Your task to perform on an android device: Search for "logitech g pro" on target.com, select the first entry, add it to the cart, then select checkout. Image 0: 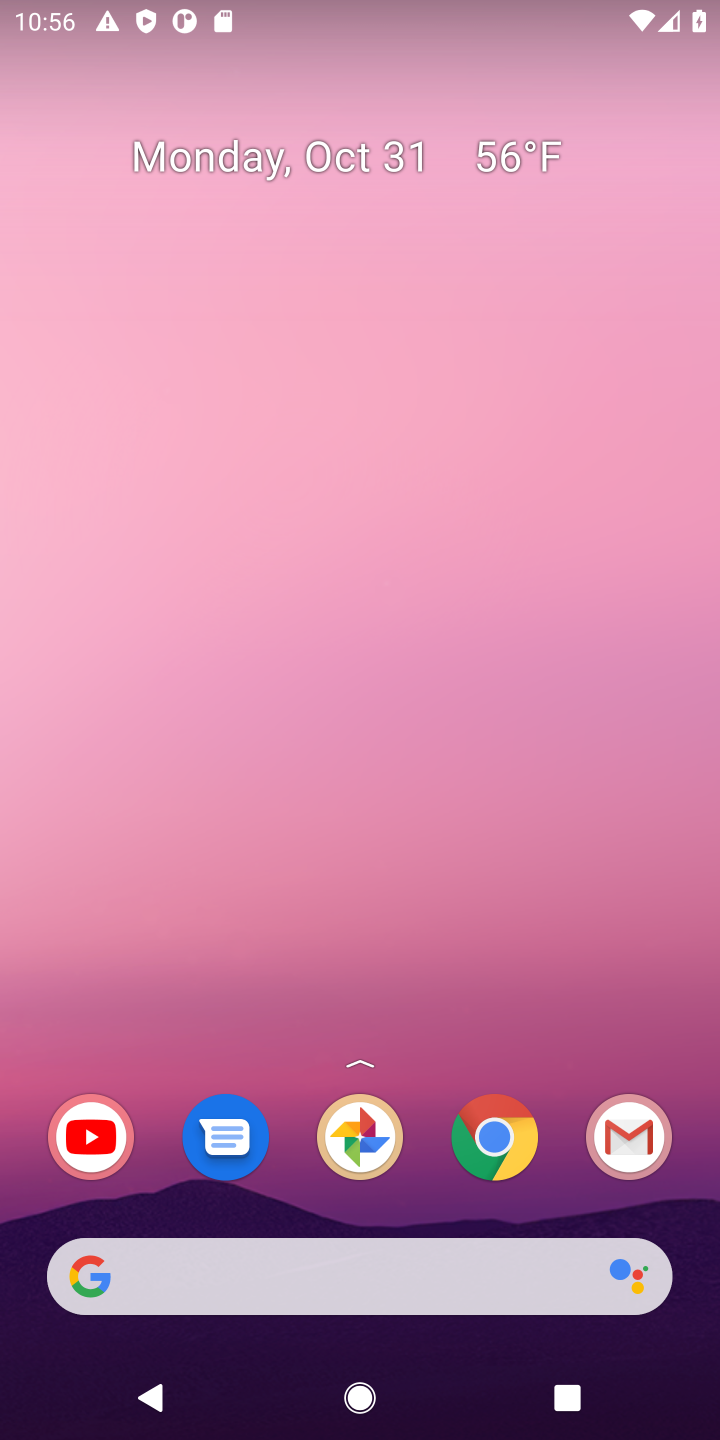
Step 0: click (489, 1136)
Your task to perform on an android device: Search for "logitech g pro" on target.com, select the first entry, add it to the cart, then select checkout. Image 1: 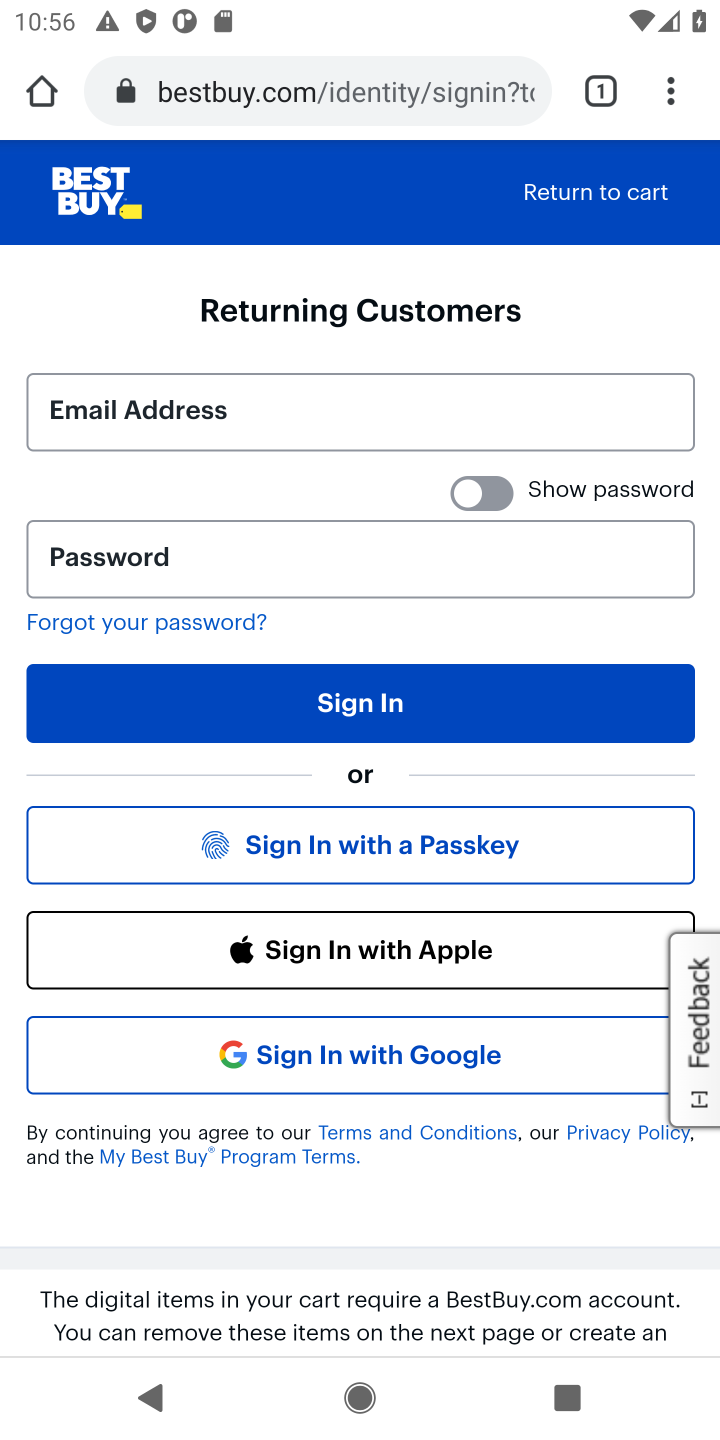
Step 1: click (339, 90)
Your task to perform on an android device: Search for "logitech g pro" on target.com, select the first entry, add it to the cart, then select checkout. Image 2: 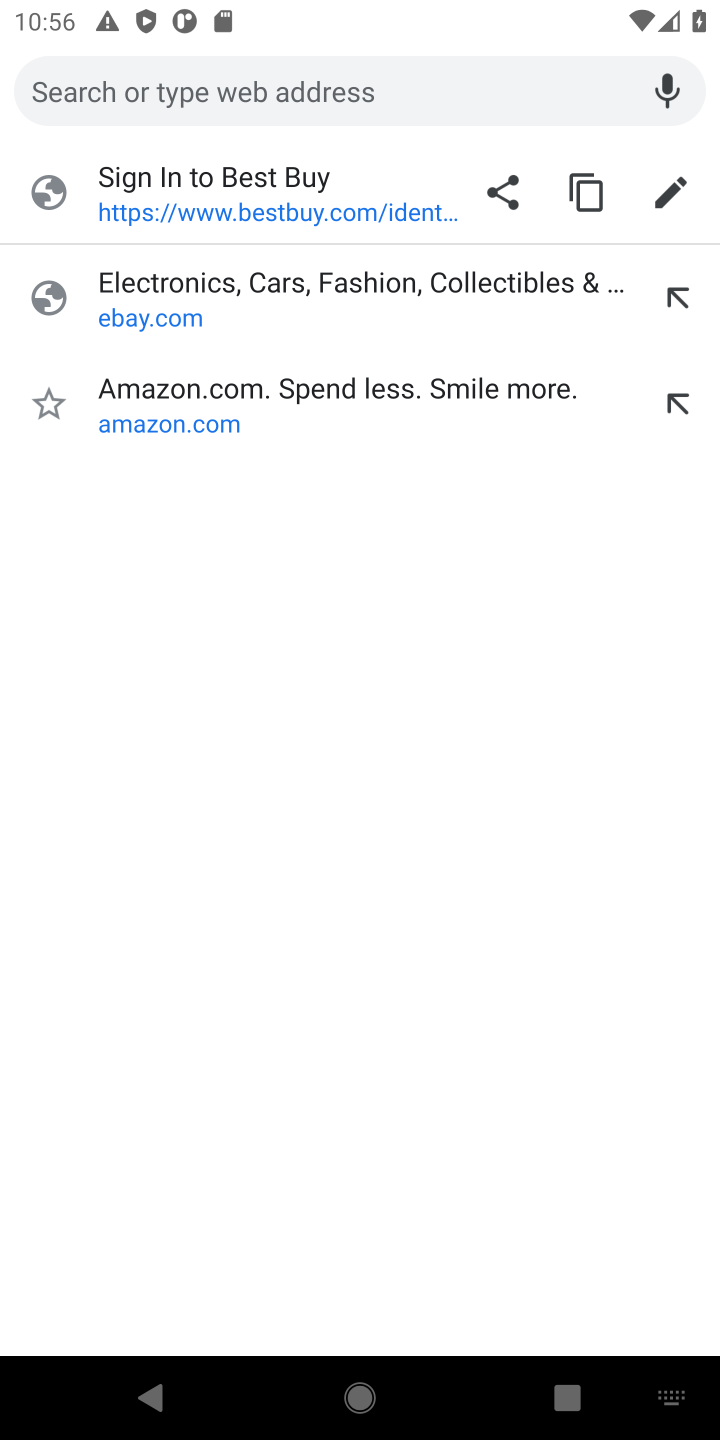
Step 2: type "target.com"
Your task to perform on an android device: Search for "logitech g pro" on target.com, select the first entry, add it to the cart, then select checkout. Image 3: 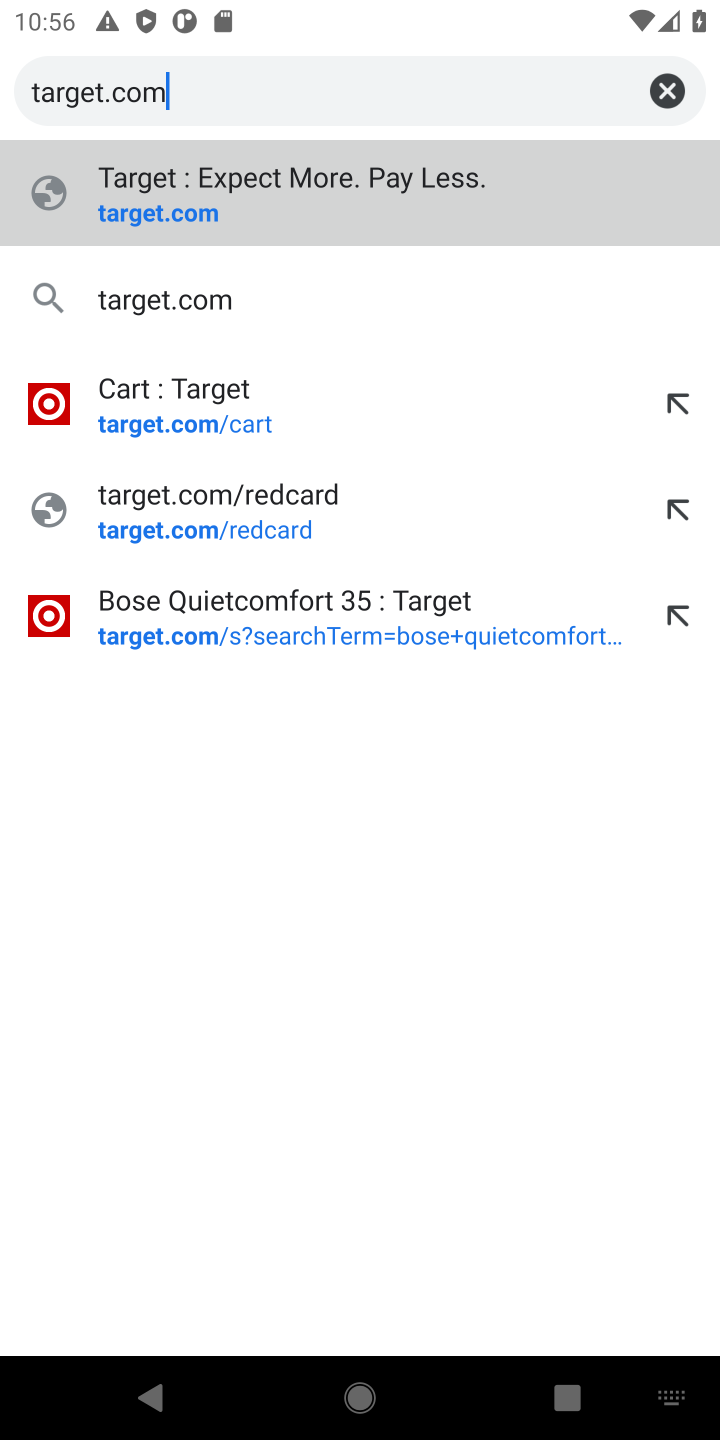
Step 3: click (187, 297)
Your task to perform on an android device: Search for "logitech g pro" on target.com, select the first entry, add it to the cart, then select checkout. Image 4: 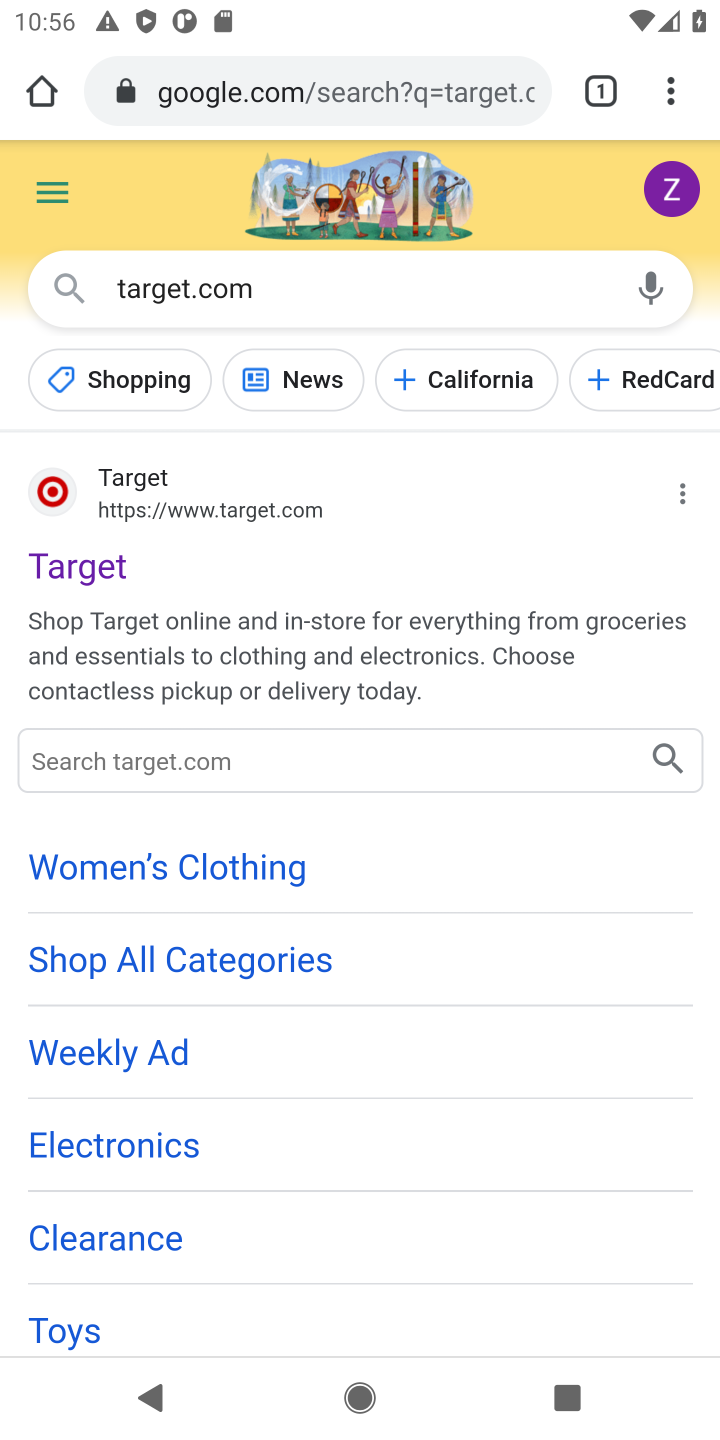
Step 4: click (162, 510)
Your task to perform on an android device: Search for "logitech g pro" on target.com, select the first entry, add it to the cart, then select checkout. Image 5: 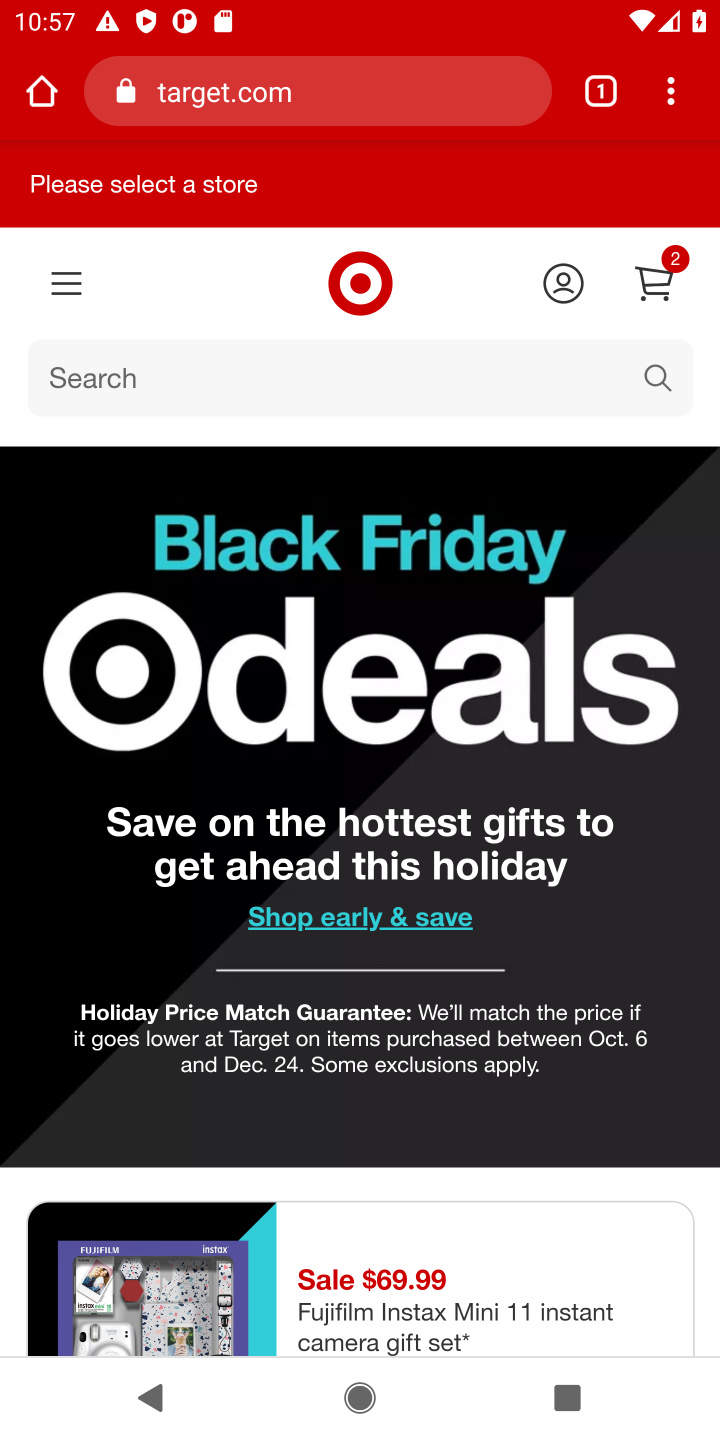
Step 5: click (571, 389)
Your task to perform on an android device: Search for "logitech g pro" on target.com, select the first entry, add it to the cart, then select checkout. Image 6: 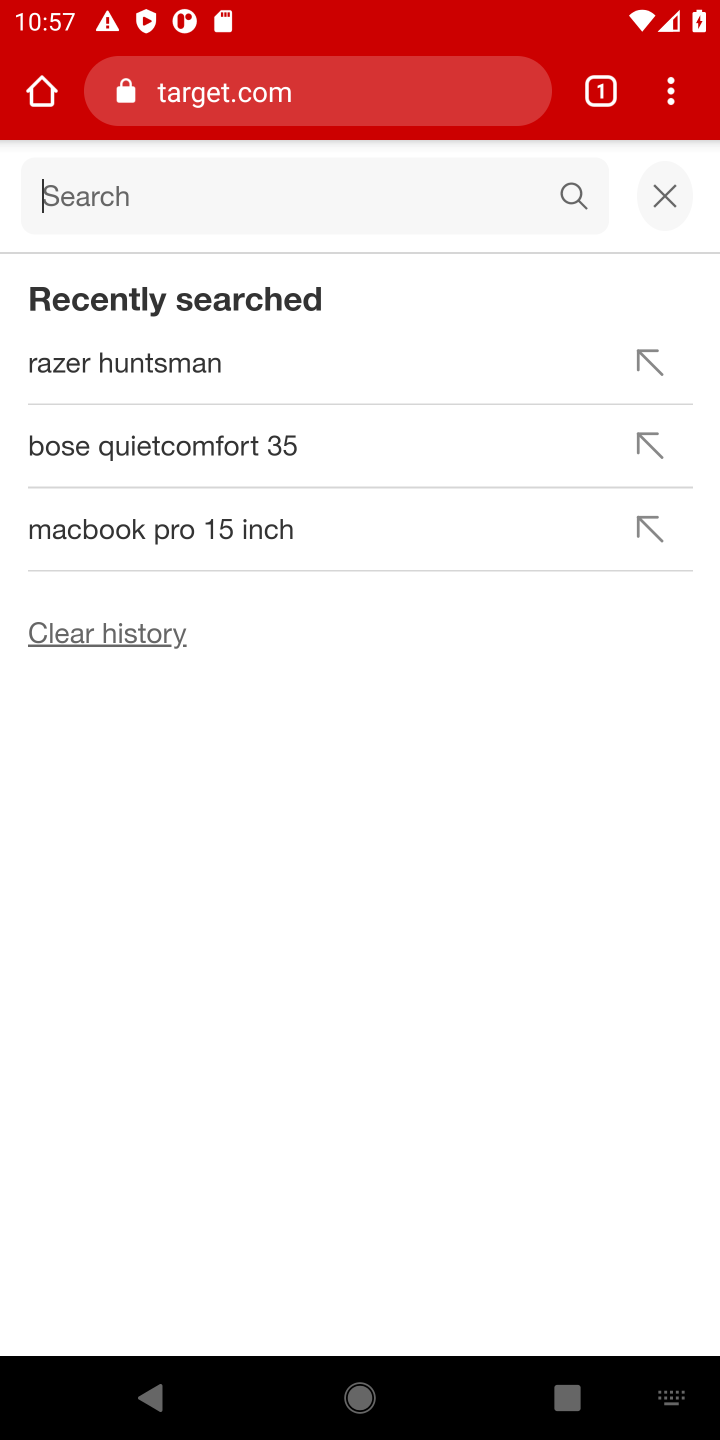
Step 6: type "logitech g pro"
Your task to perform on an android device: Search for "logitech g pro" on target.com, select the first entry, add it to the cart, then select checkout. Image 7: 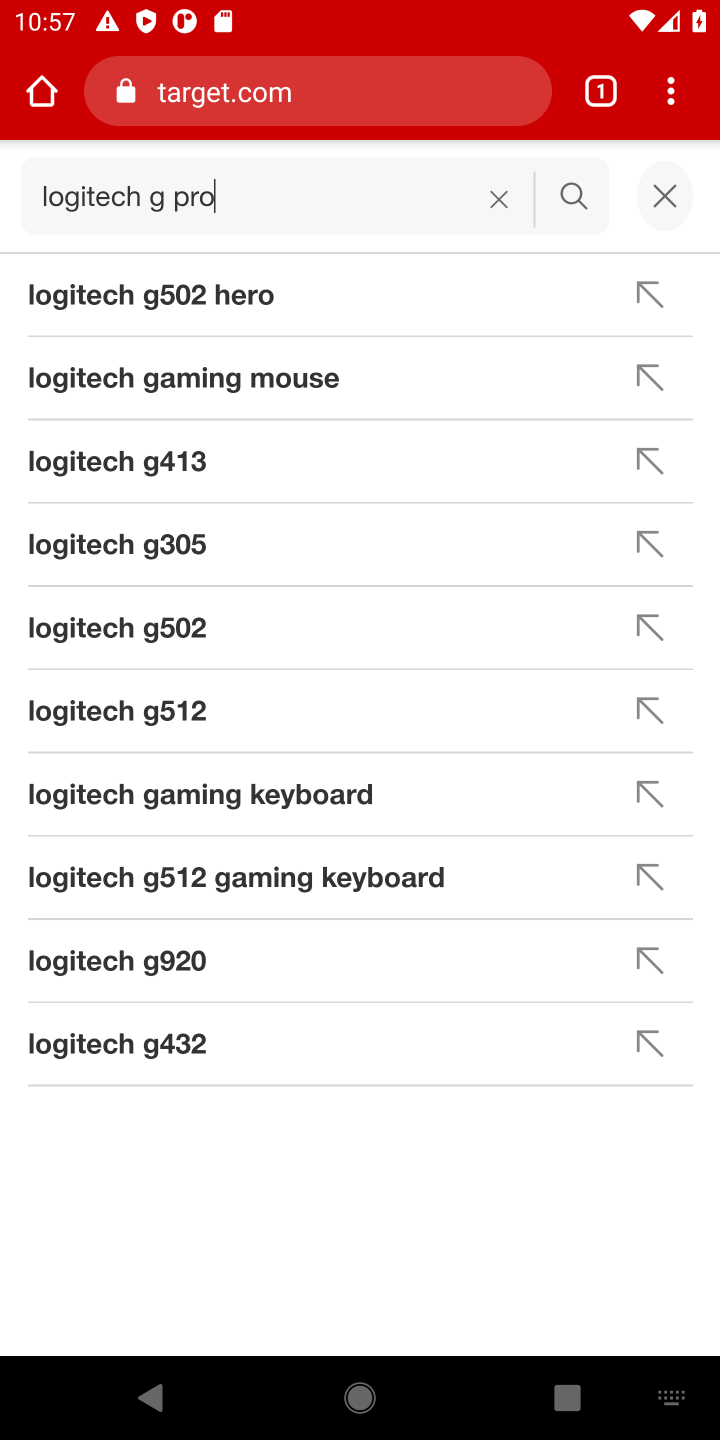
Step 7: click (575, 195)
Your task to perform on an android device: Search for "logitech g pro" on target.com, select the first entry, add it to the cart, then select checkout. Image 8: 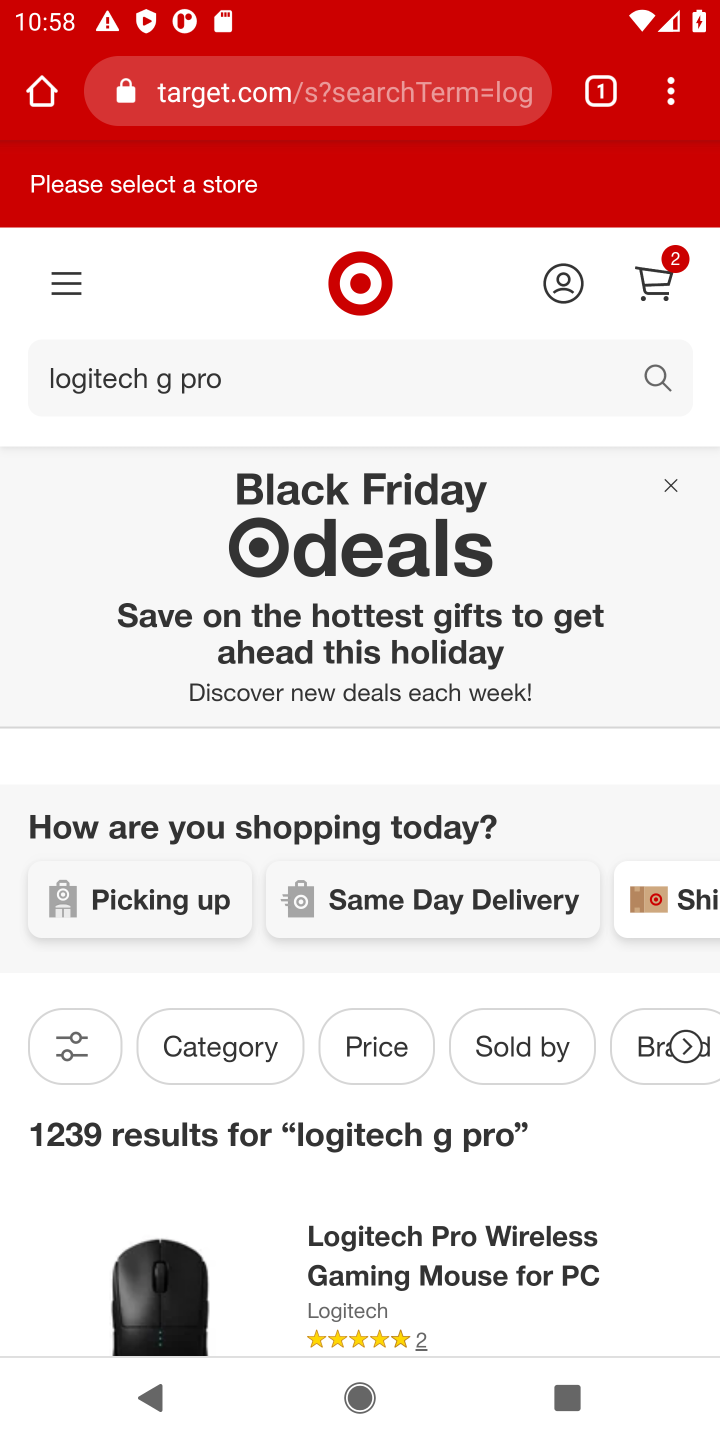
Step 8: drag from (578, 1083) to (573, 502)
Your task to perform on an android device: Search for "logitech g pro" on target.com, select the first entry, add it to the cart, then select checkout. Image 9: 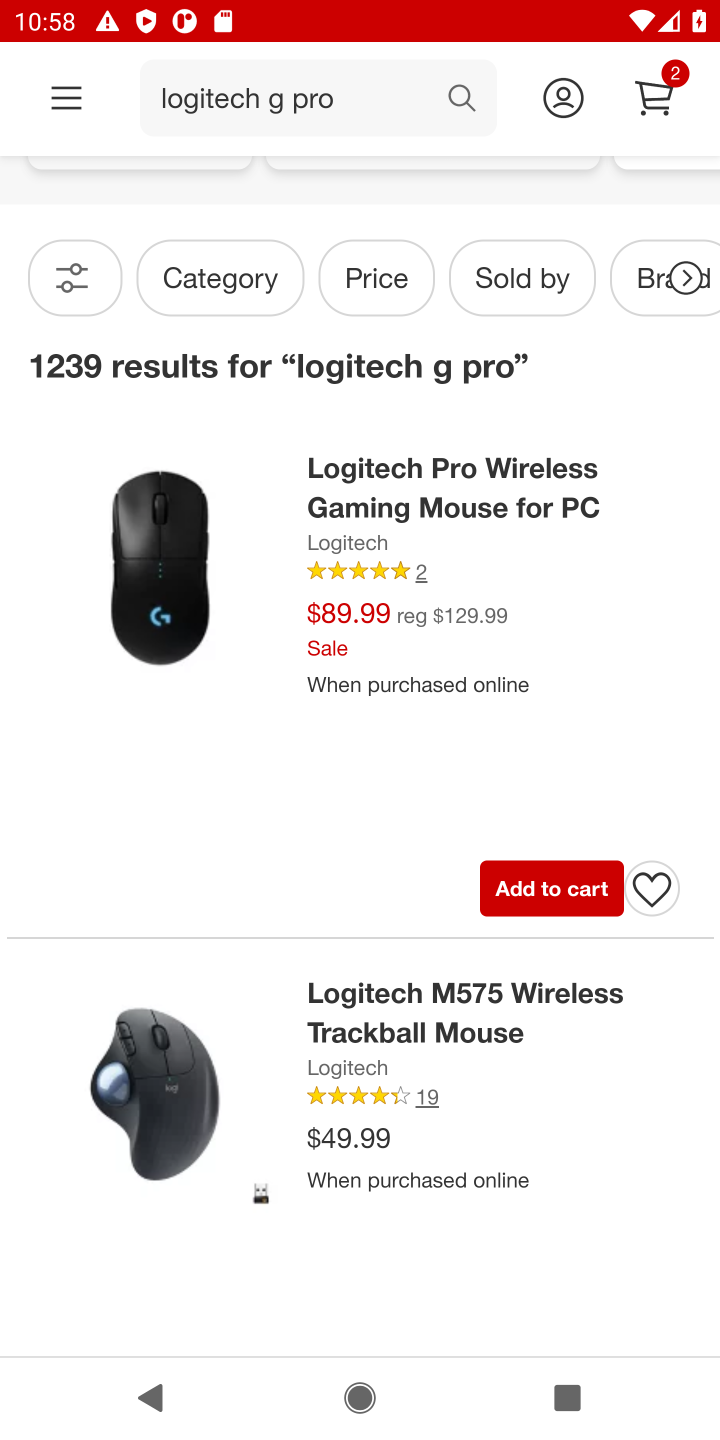
Step 9: click (510, 889)
Your task to perform on an android device: Search for "logitech g pro" on target.com, select the first entry, add it to the cart, then select checkout. Image 10: 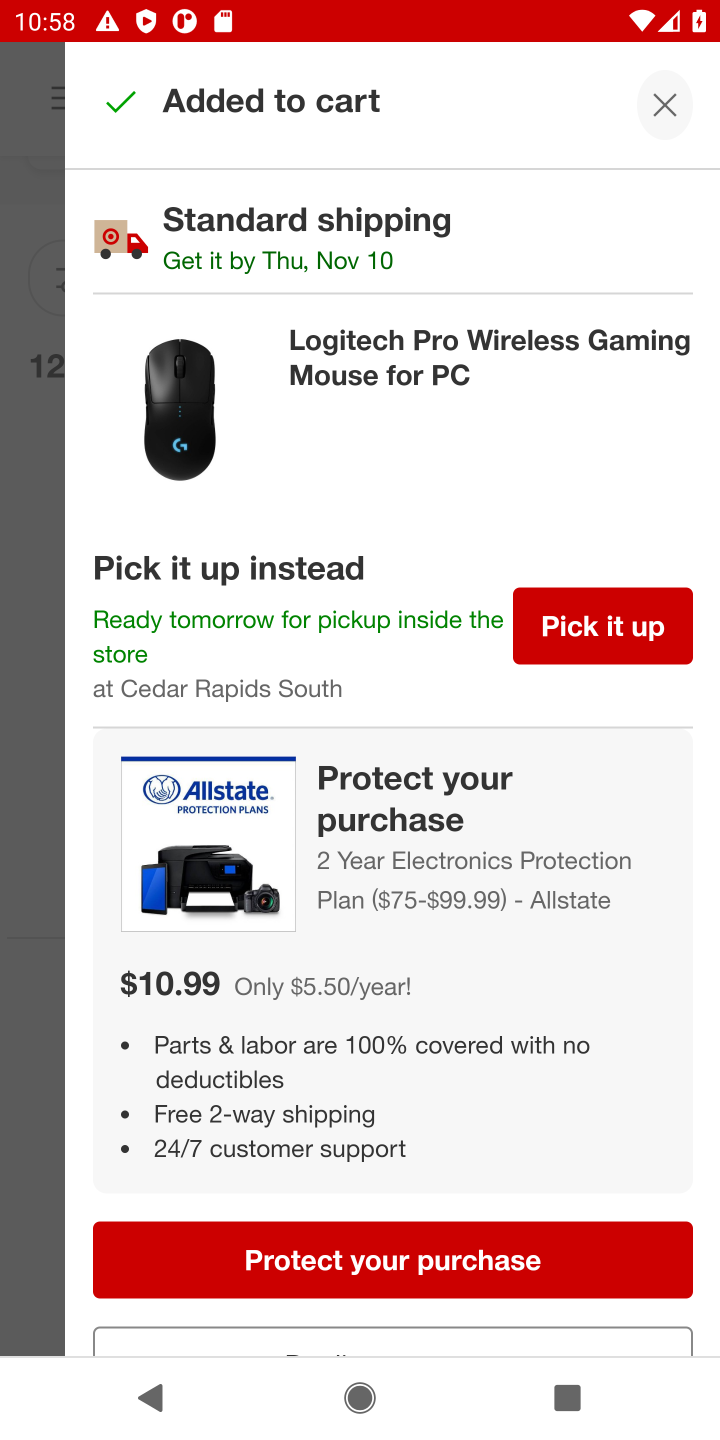
Step 10: drag from (525, 1096) to (513, 555)
Your task to perform on an android device: Search for "logitech g pro" on target.com, select the first entry, add it to the cart, then select checkout. Image 11: 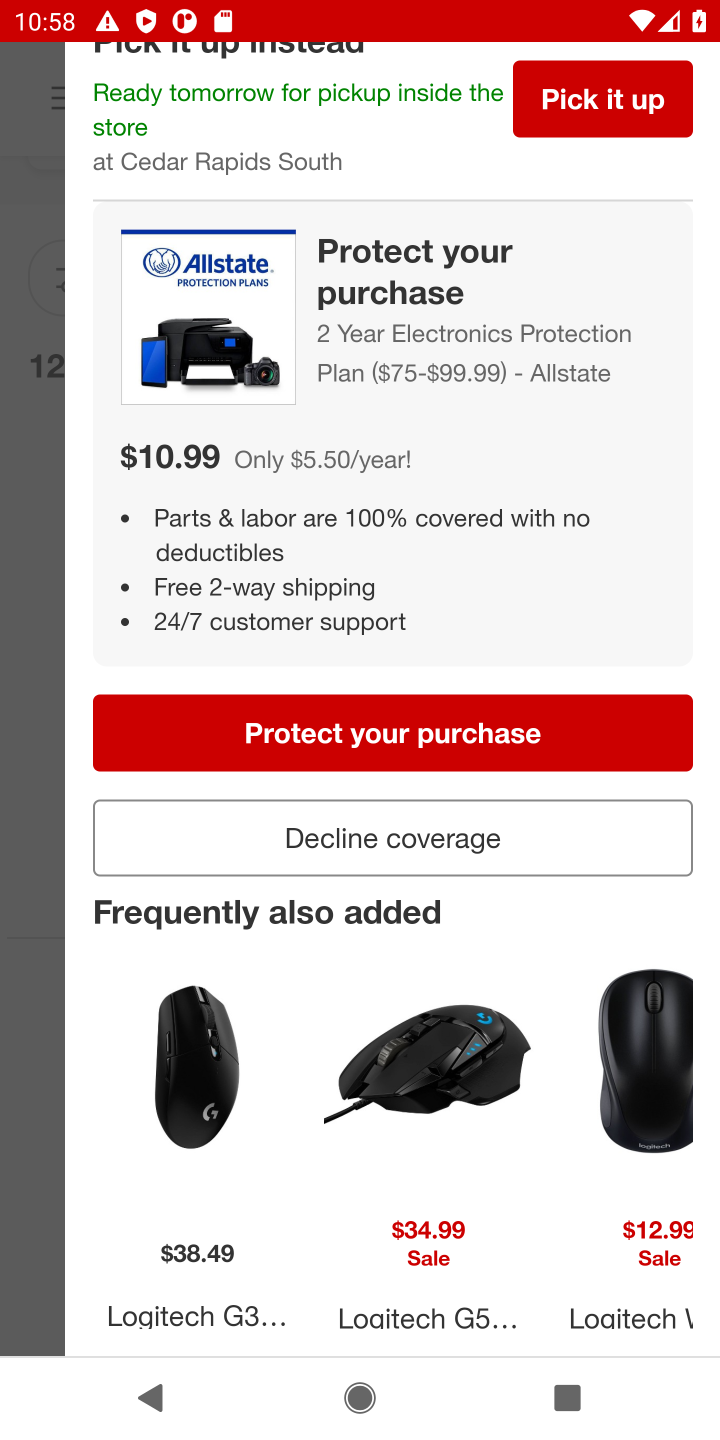
Step 11: click (396, 849)
Your task to perform on an android device: Search for "logitech g pro" on target.com, select the first entry, add it to the cart, then select checkout. Image 12: 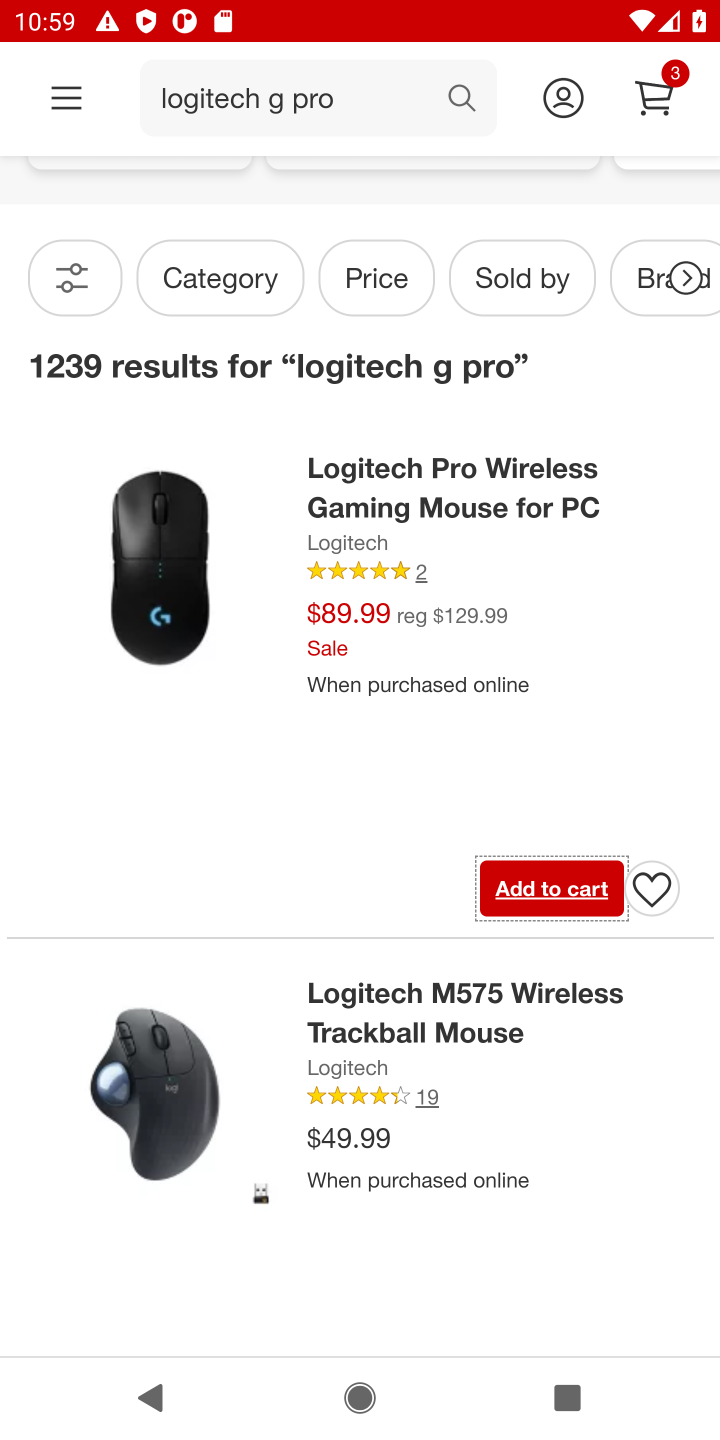
Step 12: click (669, 96)
Your task to perform on an android device: Search for "logitech g pro" on target.com, select the first entry, add it to the cart, then select checkout. Image 13: 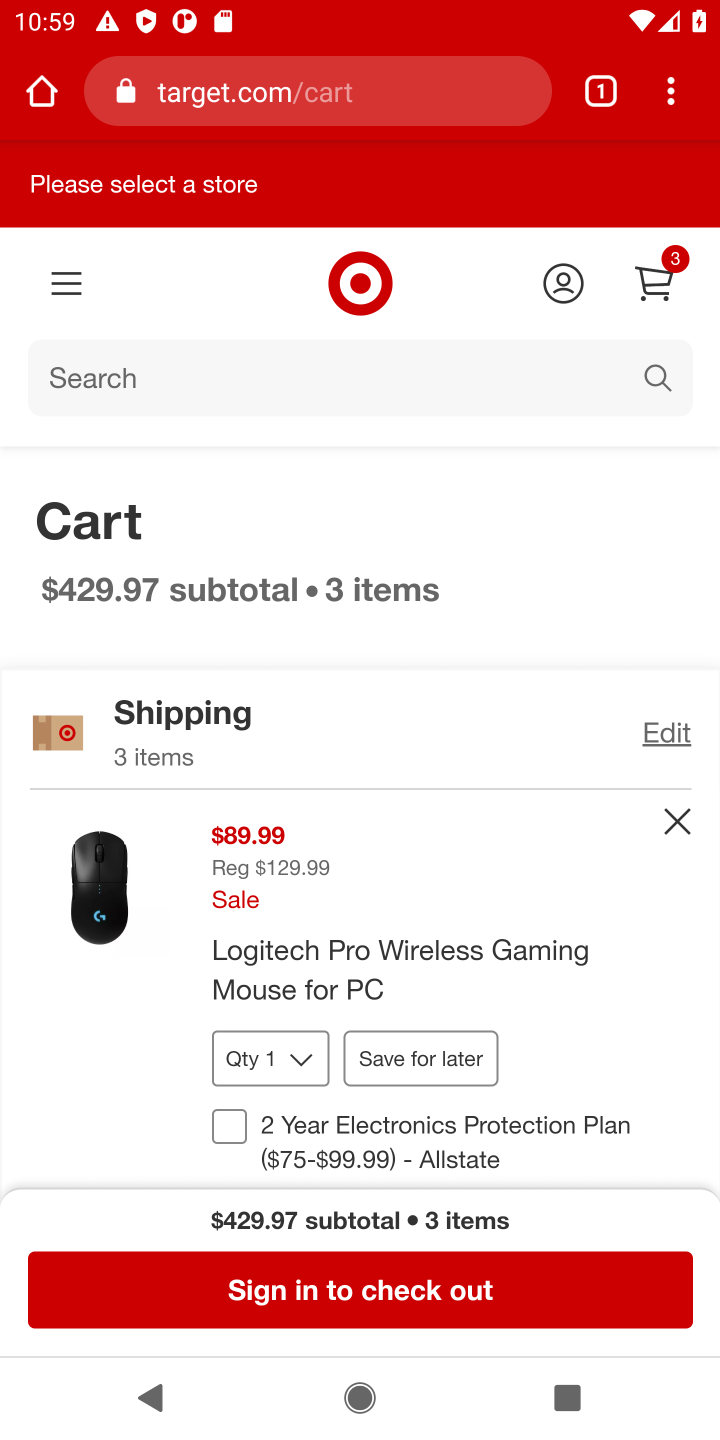
Step 13: click (361, 1292)
Your task to perform on an android device: Search for "logitech g pro" on target.com, select the first entry, add it to the cart, then select checkout. Image 14: 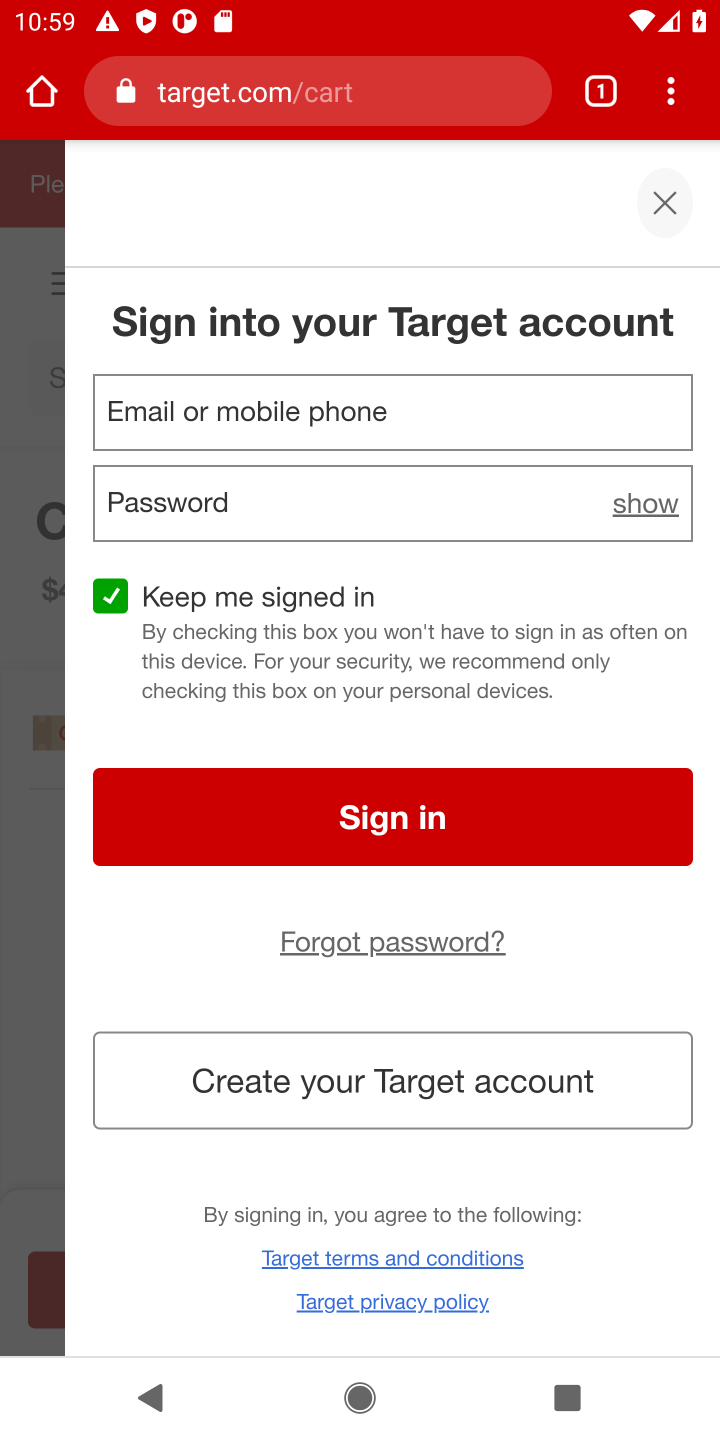
Step 14: task complete